Your task to perform on an android device: open sync settings in chrome Image 0: 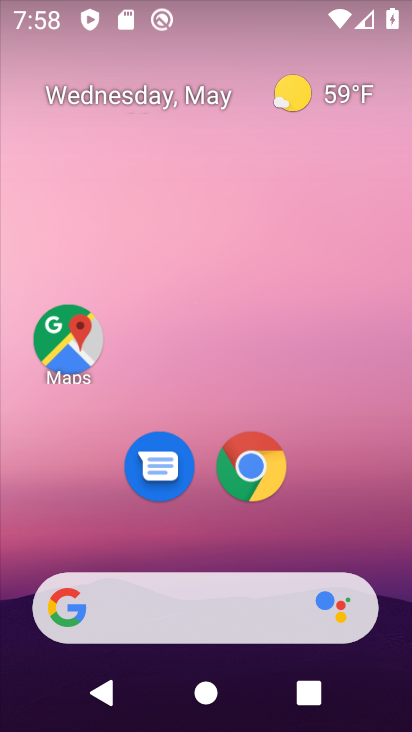
Step 0: drag from (351, 515) to (312, 227)
Your task to perform on an android device: open sync settings in chrome Image 1: 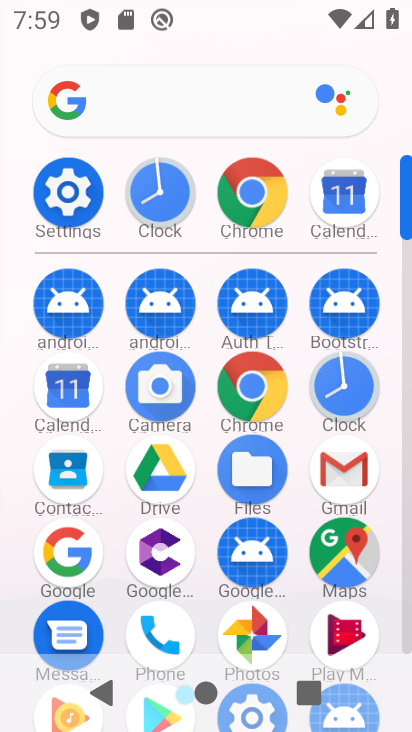
Step 1: click (259, 206)
Your task to perform on an android device: open sync settings in chrome Image 2: 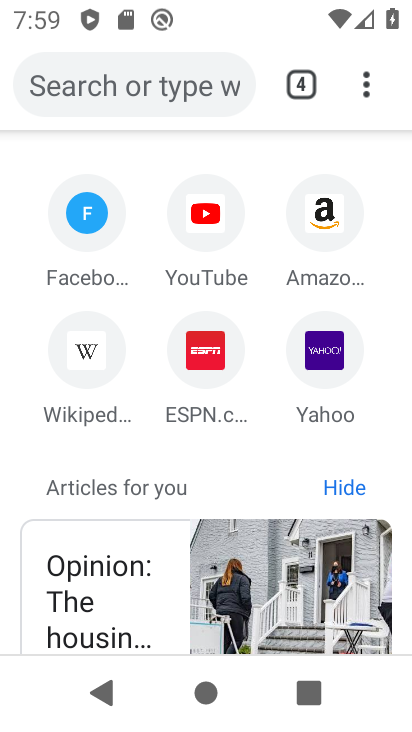
Step 2: click (357, 83)
Your task to perform on an android device: open sync settings in chrome Image 3: 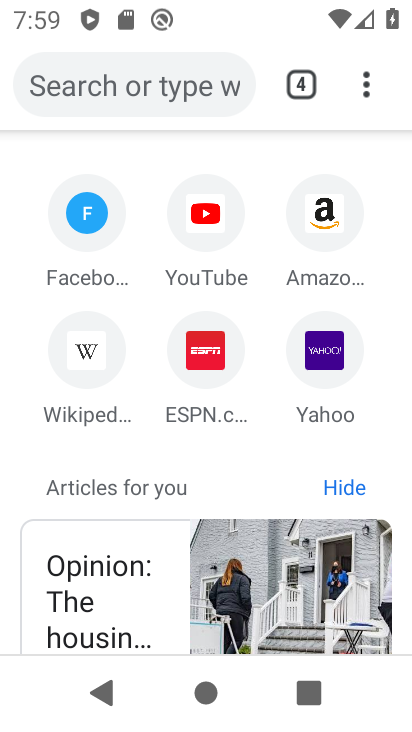
Step 3: click (354, 100)
Your task to perform on an android device: open sync settings in chrome Image 4: 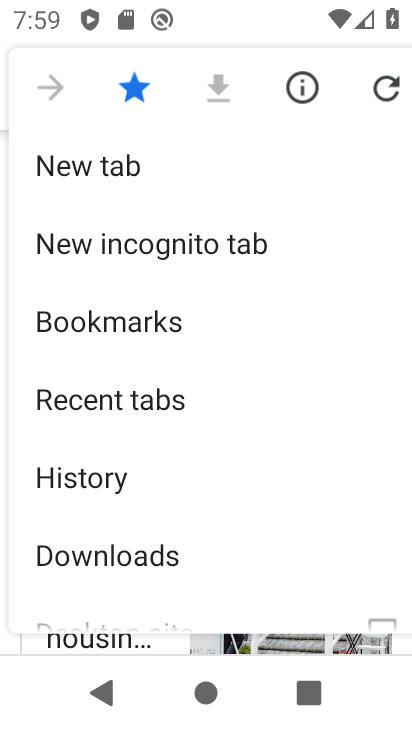
Step 4: drag from (227, 552) to (253, 201)
Your task to perform on an android device: open sync settings in chrome Image 5: 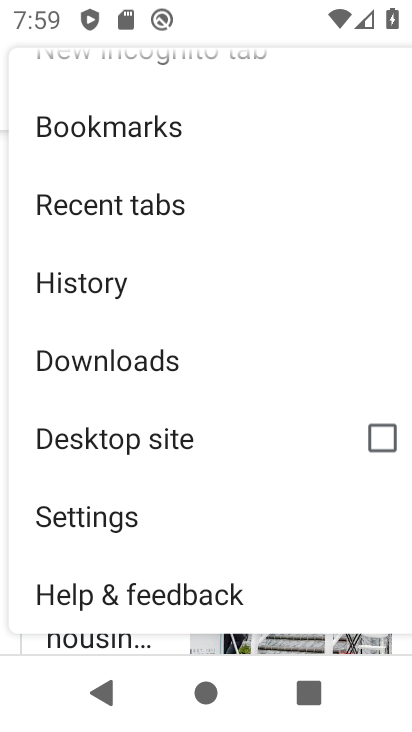
Step 5: click (127, 517)
Your task to perform on an android device: open sync settings in chrome Image 6: 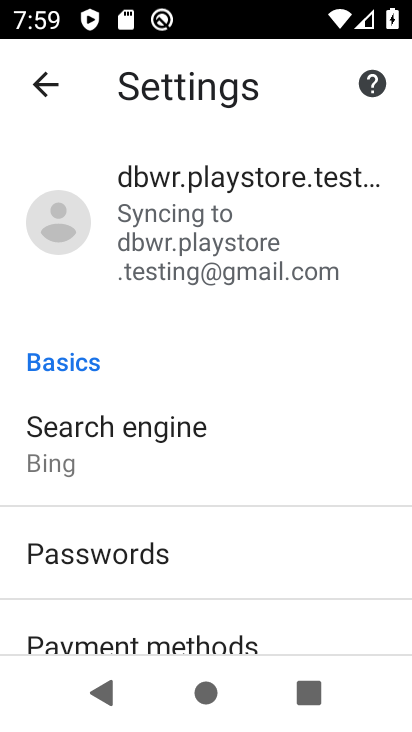
Step 6: click (177, 221)
Your task to perform on an android device: open sync settings in chrome Image 7: 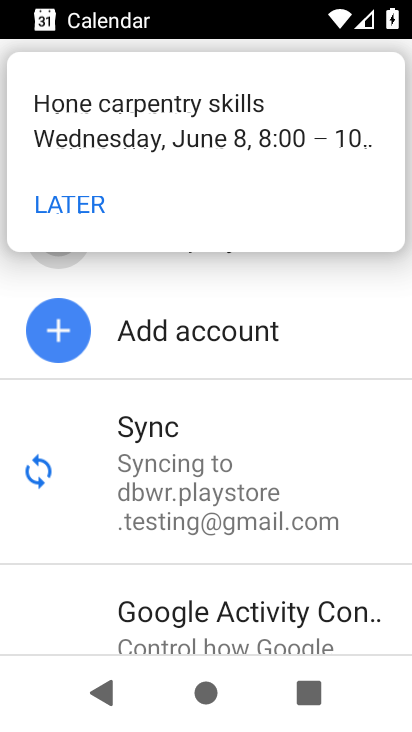
Step 7: task complete